Your task to perform on an android device: delete browsing data in the chrome app Image 0: 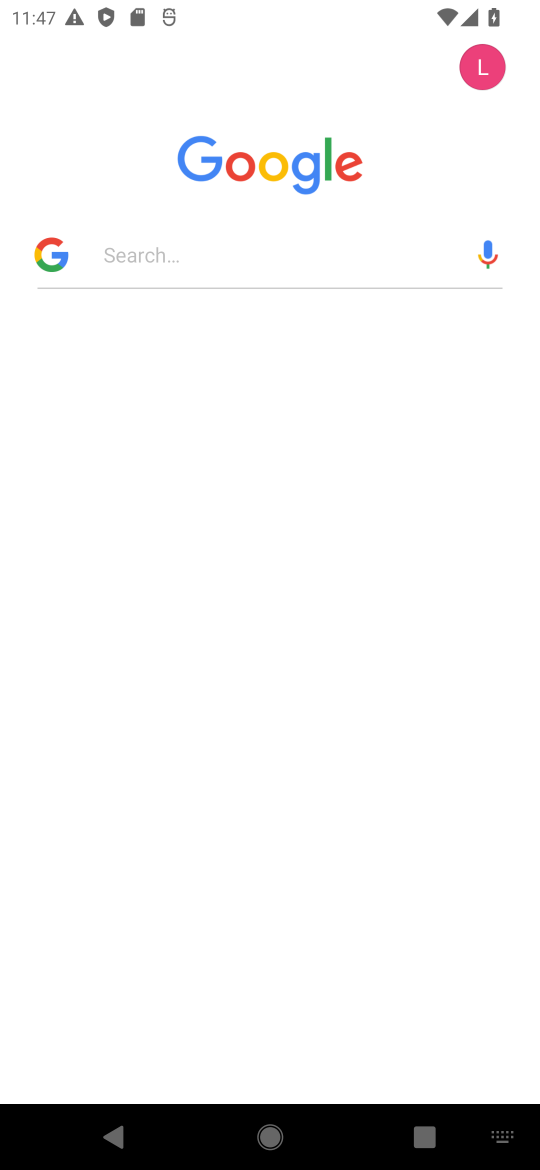
Step 0: press back button
Your task to perform on an android device: delete browsing data in the chrome app Image 1: 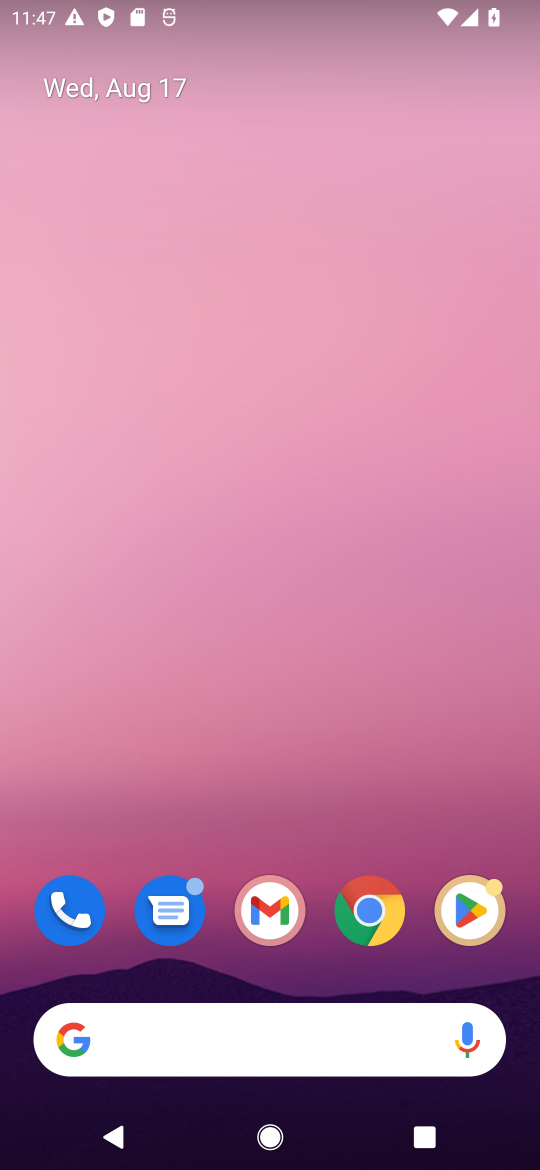
Step 1: click (360, 917)
Your task to perform on an android device: delete browsing data in the chrome app Image 2: 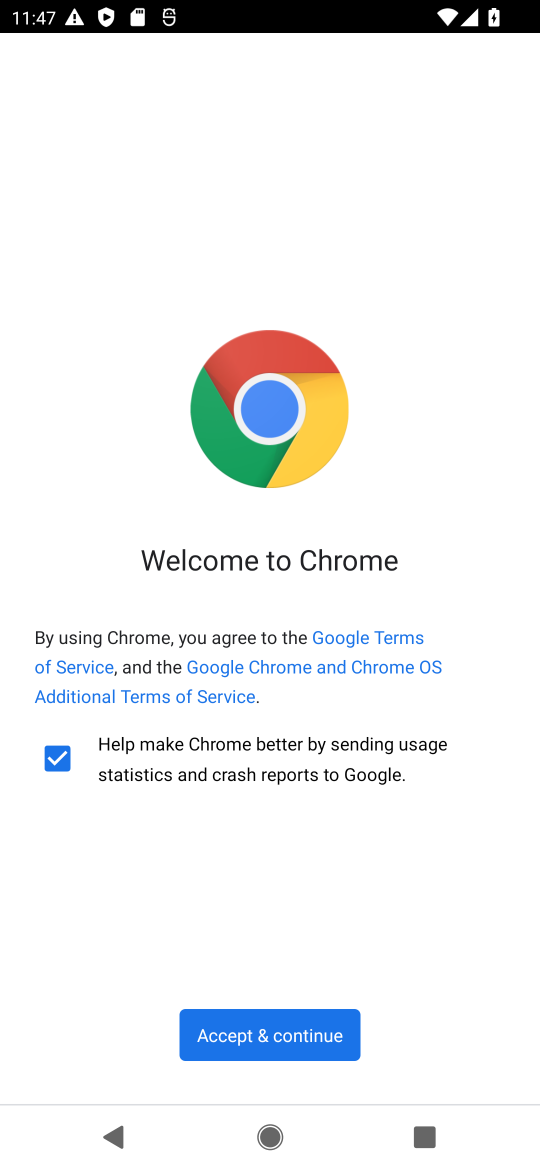
Step 2: click (288, 1026)
Your task to perform on an android device: delete browsing data in the chrome app Image 3: 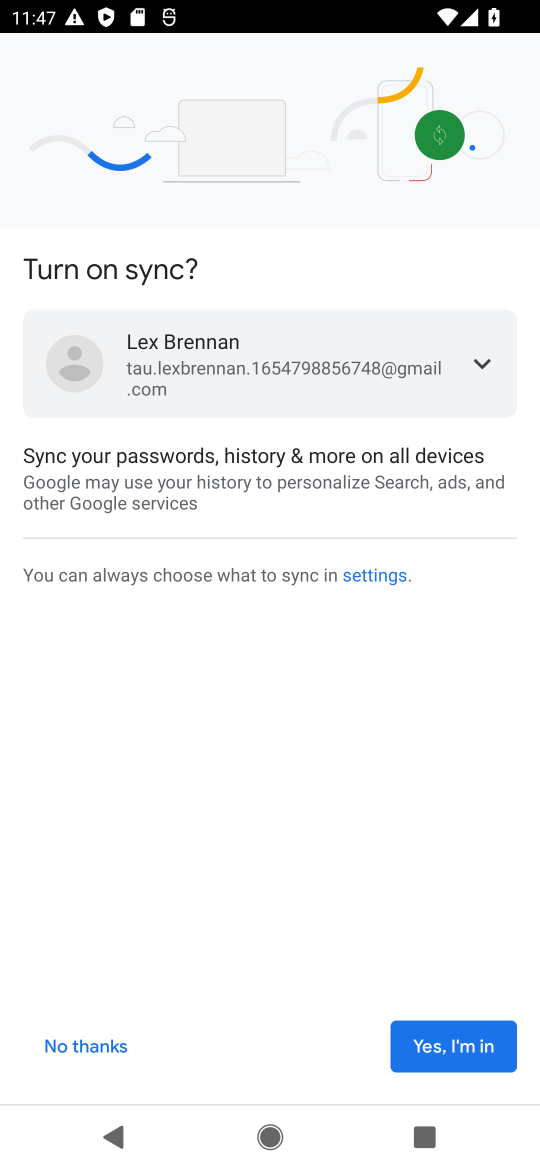
Step 3: click (422, 1039)
Your task to perform on an android device: delete browsing data in the chrome app Image 4: 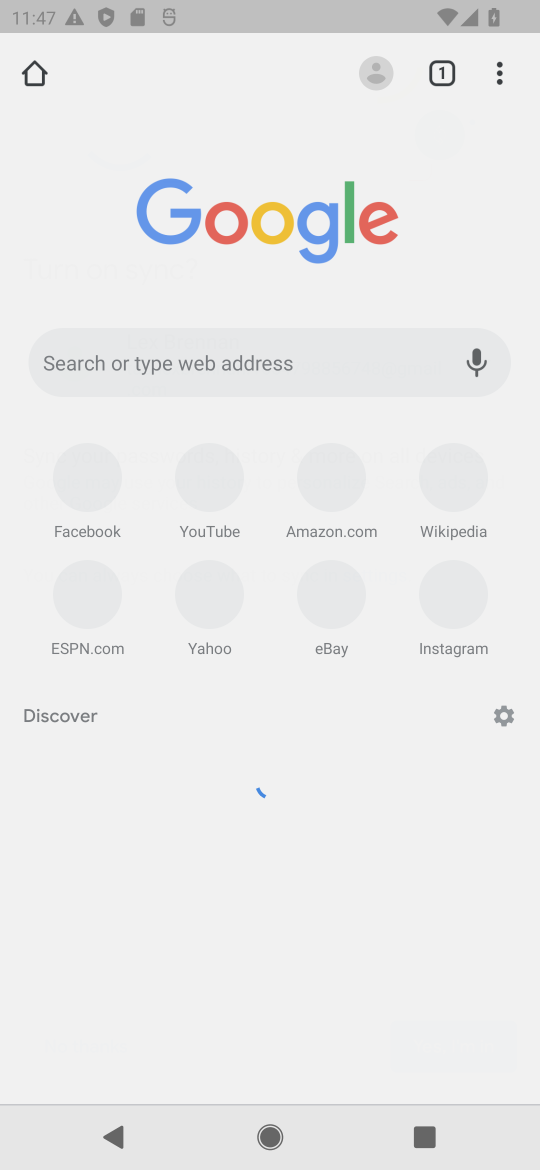
Step 4: click (113, 1042)
Your task to perform on an android device: delete browsing data in the chrome app Image 5: 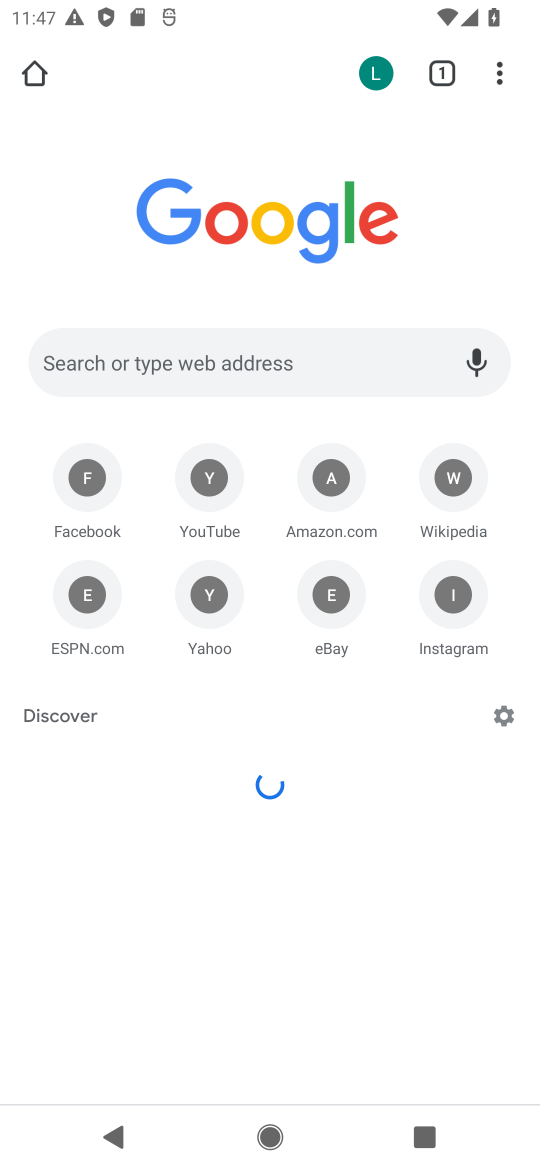
Step 5: task complete